Your task to perform on an android device: turn off smart reply in the gmail app Image 0: 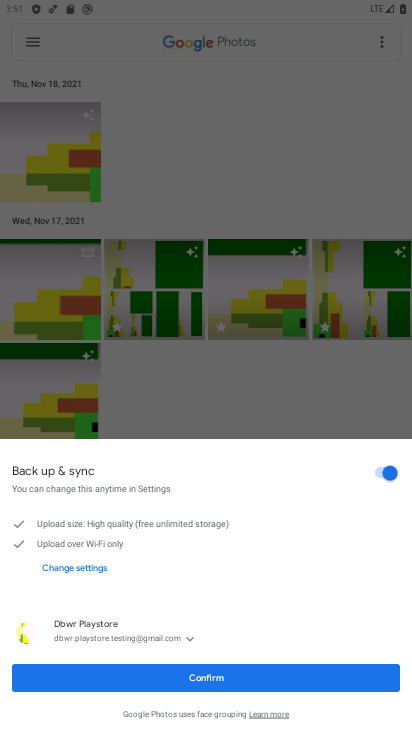
Step 0: press home button
Your task to perform on an android device: turn off smart reply in the gmail app Image 1: 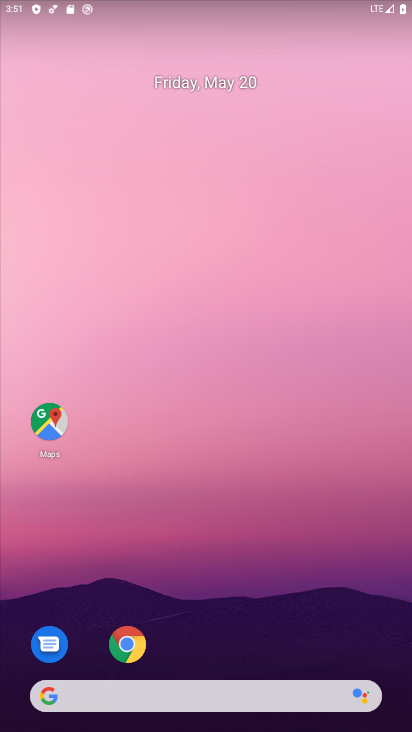
Step 1: drag from (259, 723) to (307, 246)
Your task to perform on an android device: turn off smart reply in the gmail app Image 2: 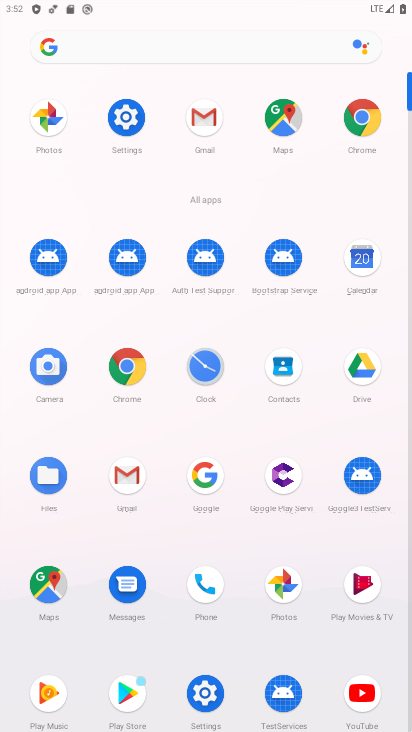
Step 2: click (145, 462)
Your task to perform on an android device: turn off smart reply in the gmail app Image 3: 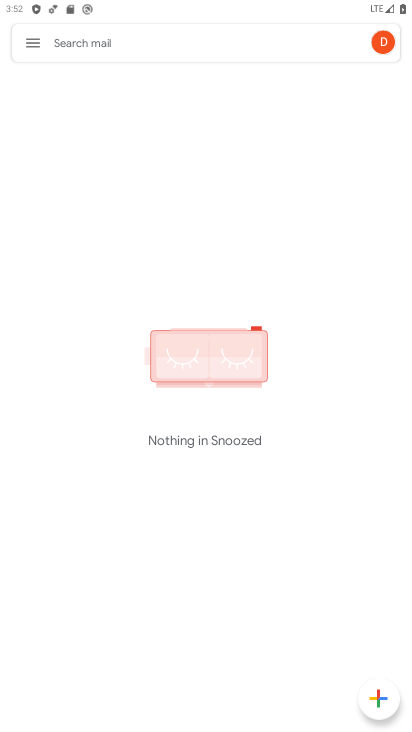
Step 3: click (27, 46)
Your task to perform on an android device: turn off smart reply in the gmail app Image 4: 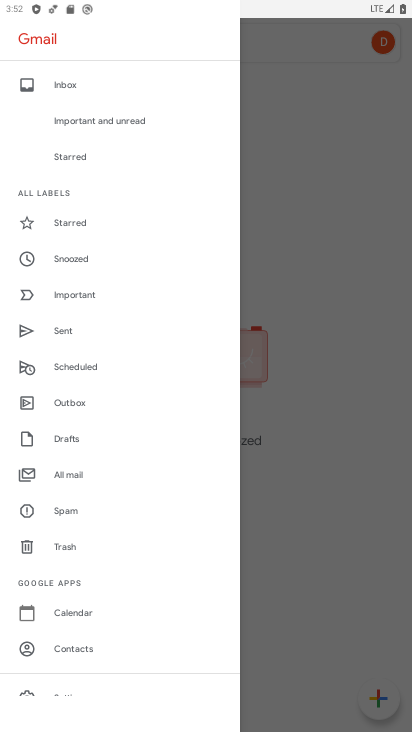
Step 4: drag from (73, 585) to (132, 495)
Your task to perform on an android device: turn off smart reply in the gmail app Image 5: 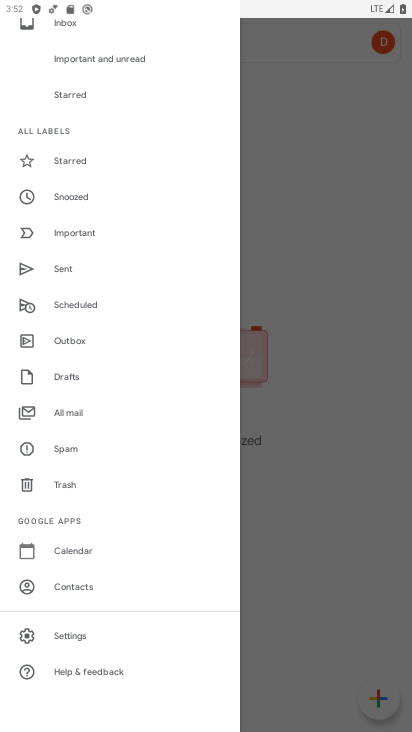
Step 5: click (55, 640)
Your task to perform on an android device: turn off smart reply in the gmail app Image 6: 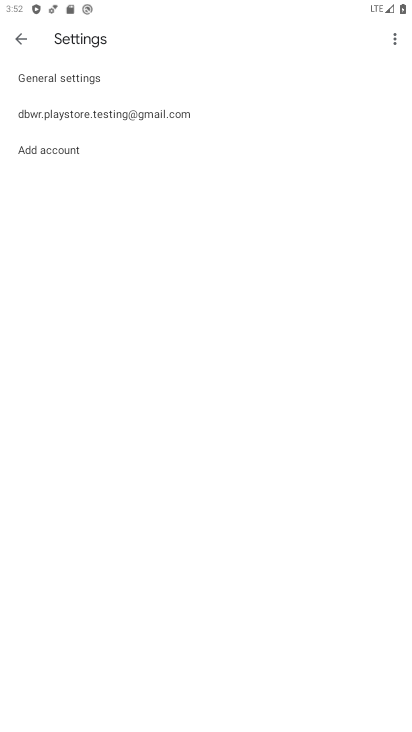
Step 6: click (72, 112)
Your task to perform on an android device: turn off smart reply in the gmail app Image 7: 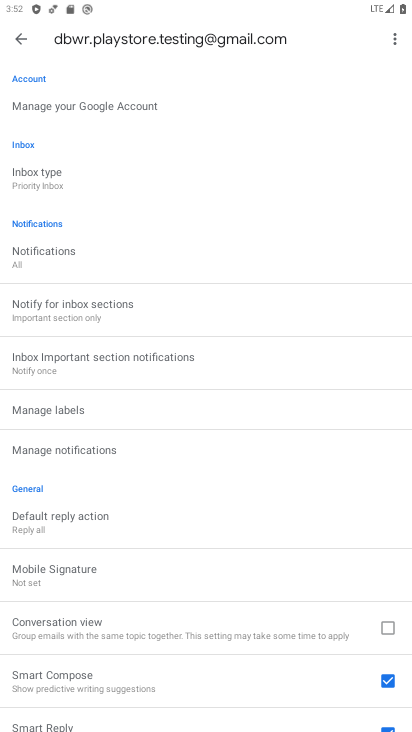
Step 7: drag from (131, 601) to (225, 421)
Your task to perform on an android device: turn off smart reply in the gmail app Image 8: 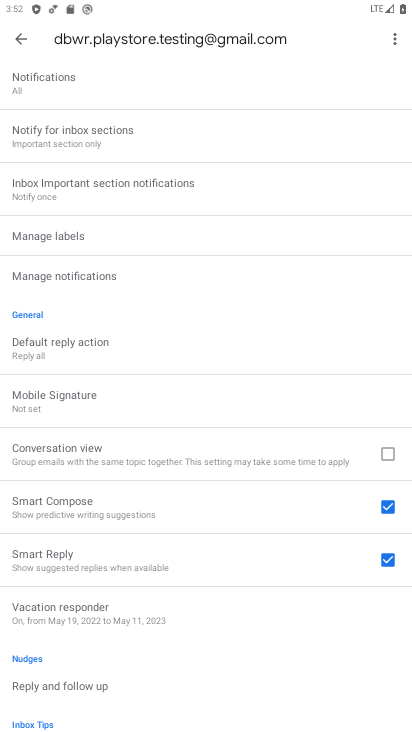
Step 8: click (380, 564)
Your task to perform on an android device: turn off smart reply in the gmail app Image 9: 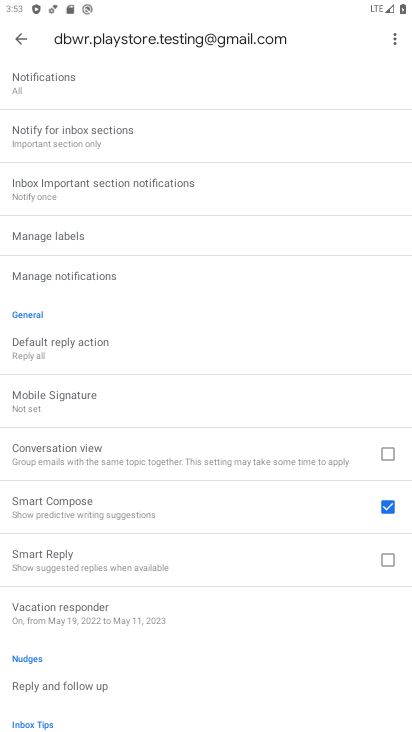
Step 9: task complete